Your task to perform on an android device: open the mobile data screen to see how much data has been used Image 0: 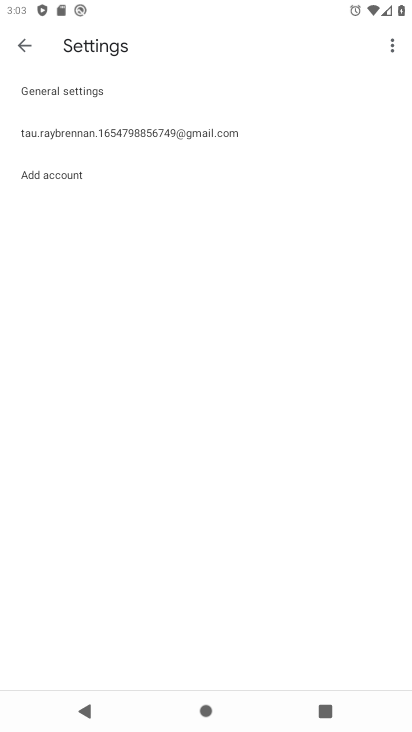
Step 0: press home button
Your task to perform on an android device: open the mobile data screen to see how much data has been used Image 1: 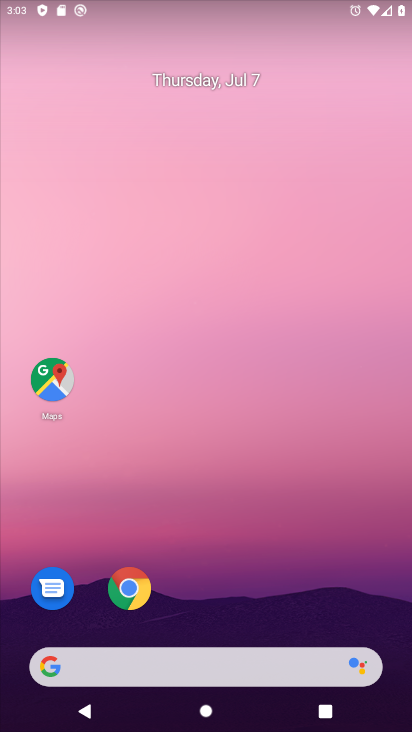
Step 1: drag from (133, 657) to (136, 270)
Your task to perform on an android device: open the mobile data screen to see how much data has been used Image 2: 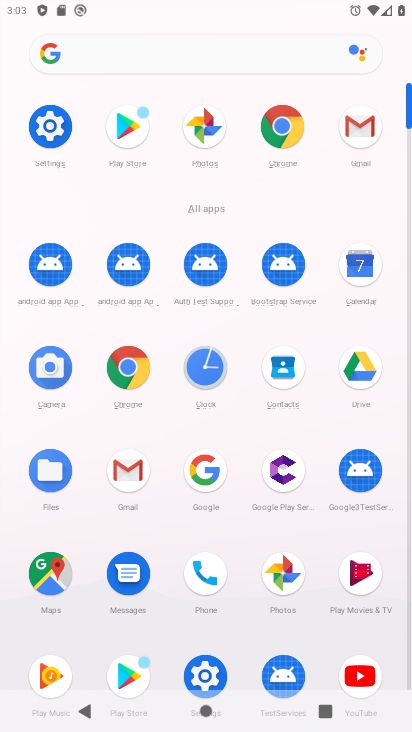
Step 2: click (52, 133)
Your task to perform on an android device: open the mobile data screen to see how much data has been used Image 3: 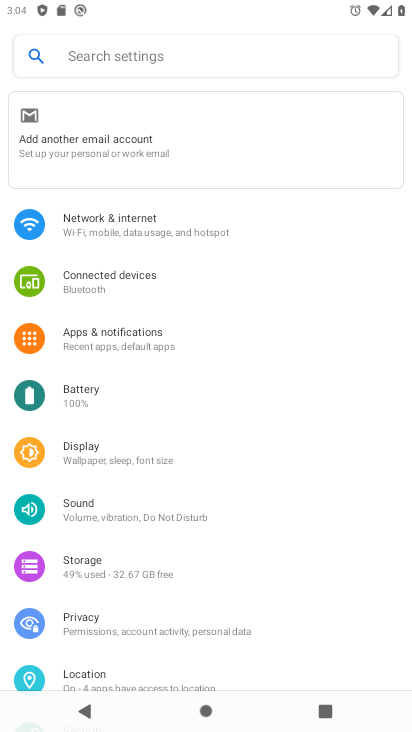
Step 3: click (99, 227)
Your task to perform on an android device: open the mobile data screen to see how much data has been used Image 4: 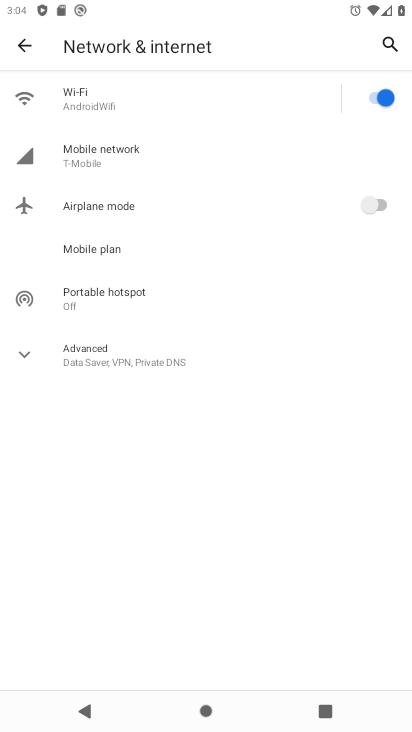
Step 4: click (86, 159)
Your task to perform on an android device: open the mobile data screen to see how much data has been used Image 5: 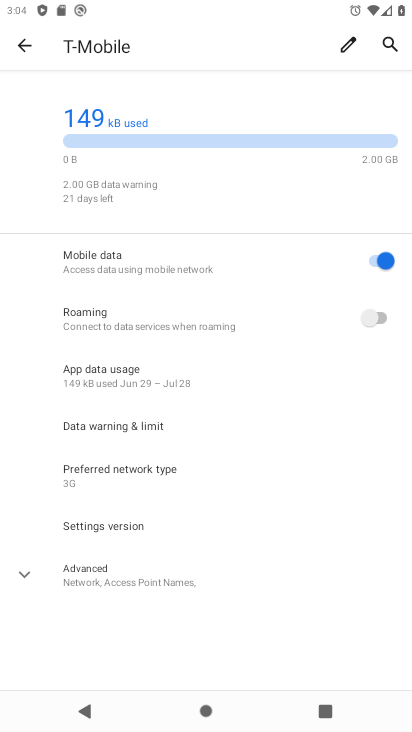
Step 5: click (108, 577)
Your task to perform on an android device: open the mobile data screen to see how much data has been used Image 6: 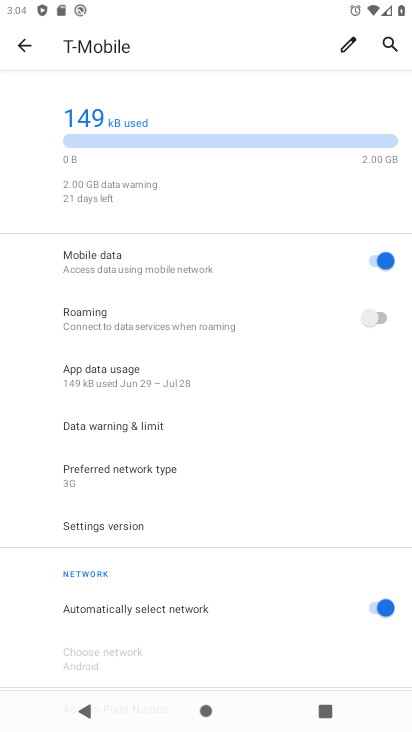
Step 6: task complete